Your task to perform on an android device: Open the map Image 0: 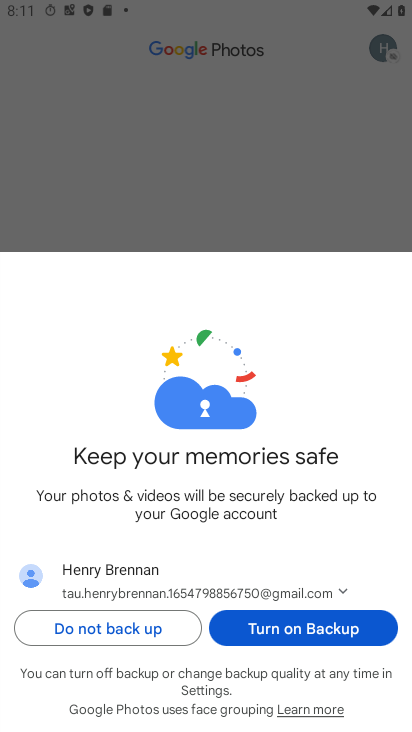
Step 0: press home button
Your task to perform on an android device: Open the map Image 1: 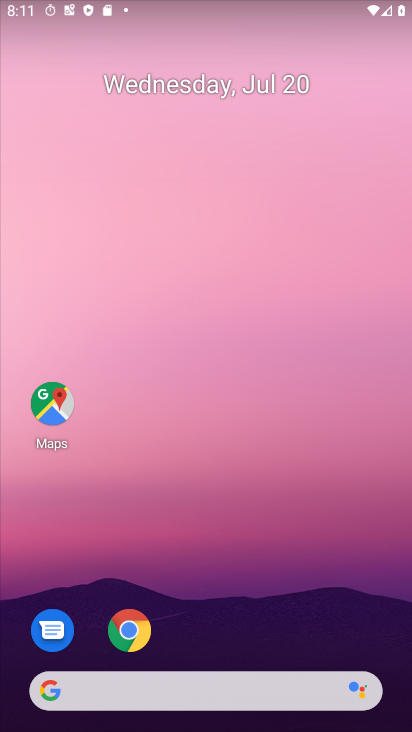
Step 1: drag from (226, 643) to (235, 193)
Your task to perform on an android device: Open the map Image 2: 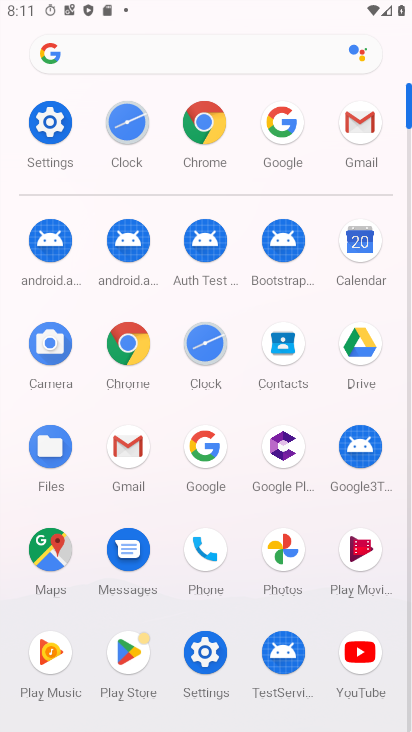
Step 2: drag from (257, 487) to (250, 272)
Your task to perform on an android device: Open the map Image 3: 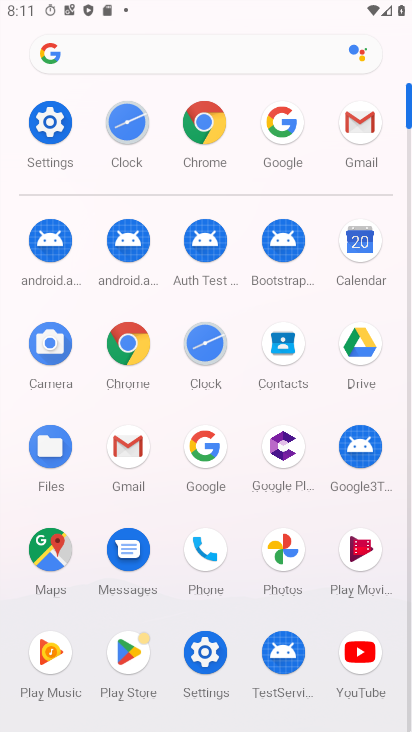
Step 3: click (56, 568)
Your task to perform on an android device: Open the map Image 4: 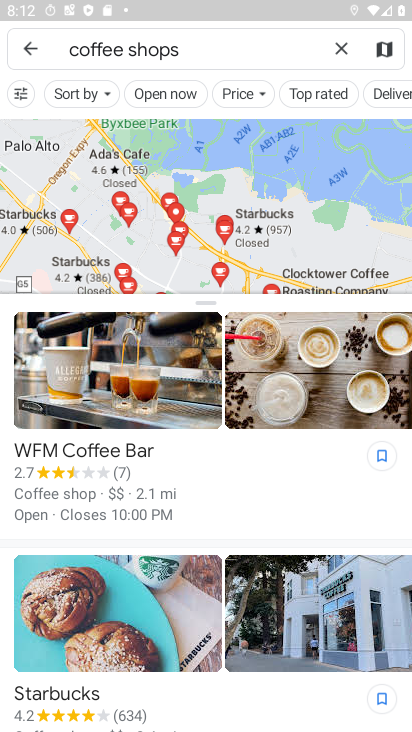
Step 4: task complete